Your task to perform on an android device: Play the last video I watched on Youtube Image 0: 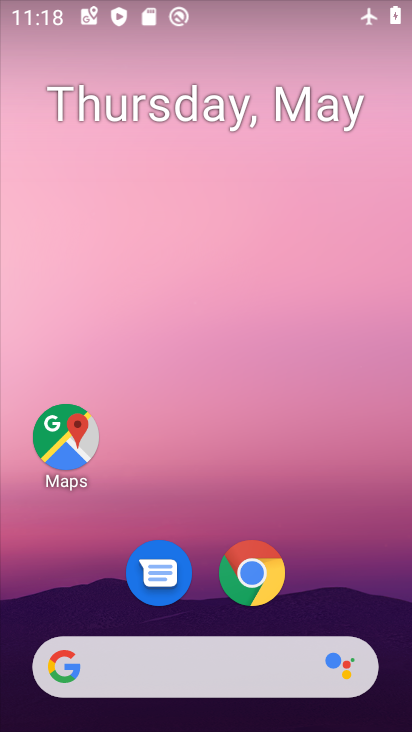
Step 0: drag from (352, 564) to (271, 227)
Your task to perform on an android device: Play the last video I watched on Youtube Image 1: 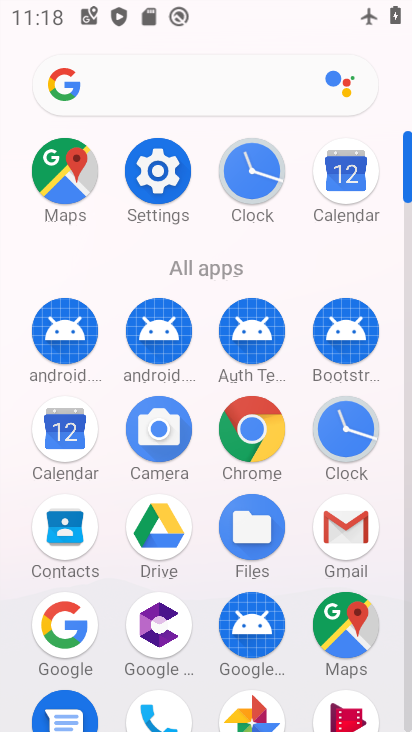
Step 1: drag from (215, 264) to (163, 53)
Your task to perform on an android device: Play the last video I watched on Youtube Image 2: 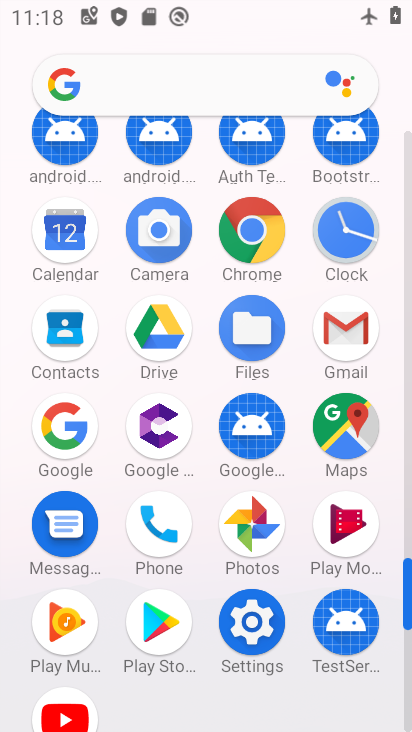
Step 2: click (58, 712)
Your task to perform on an android device: Play the last video I watched on Youtube Image 3: 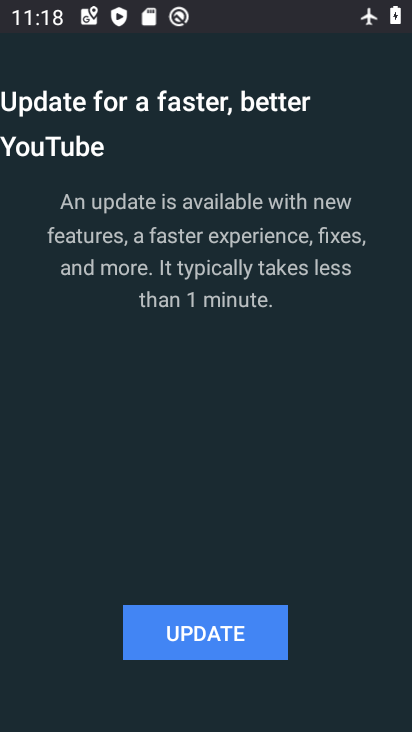
Step 3: click (250, 614)
Your task to perform on an android device: Play the last video I watched on Youtube Image 4: 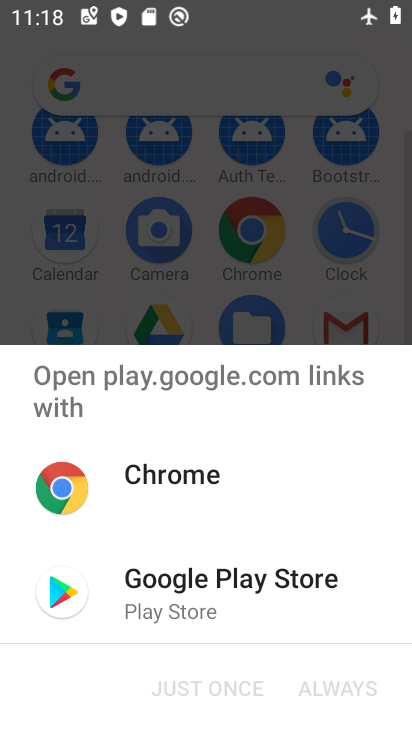
Step 4: click (164, 578)
Your task to perform on an android device: Play the last video I watched on Youtube Image 5: 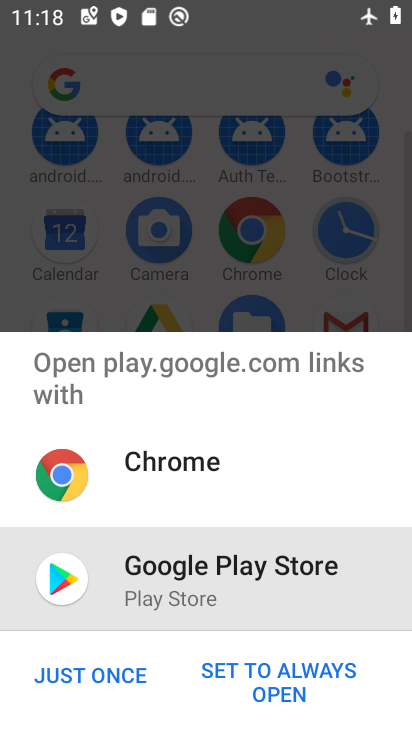
Step 5: click (128, 684)
Your task to perform on an android device: Play the last video I watched on Youtube Image 6: 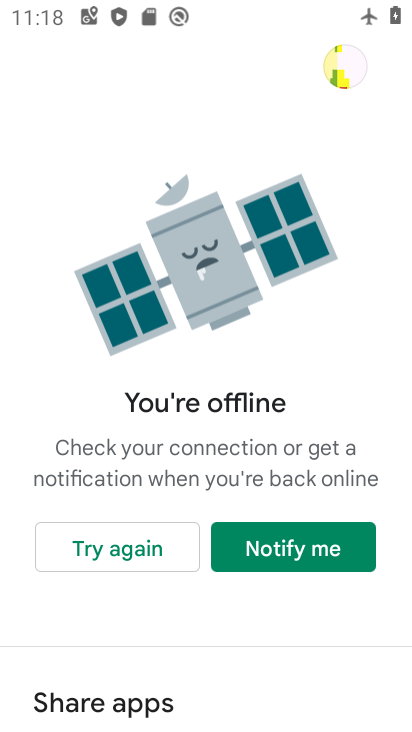
Step 6: click (164, 560)
Your task to perform on an android device: Play the last video I watched on Youtube Image 7: 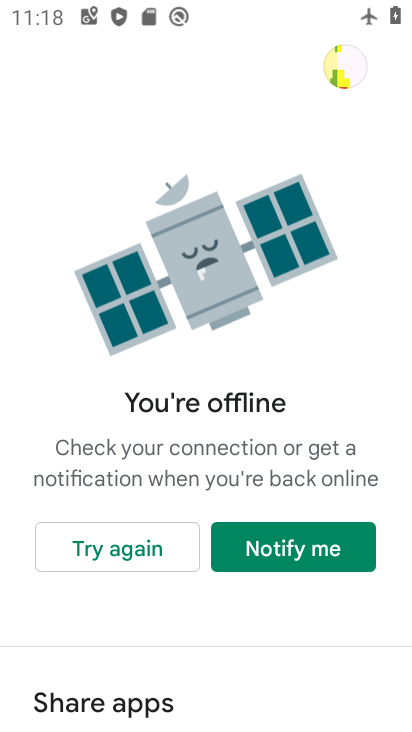
Step 7: task complete